Your task to perform on an android device: What is the news today? Image 0: 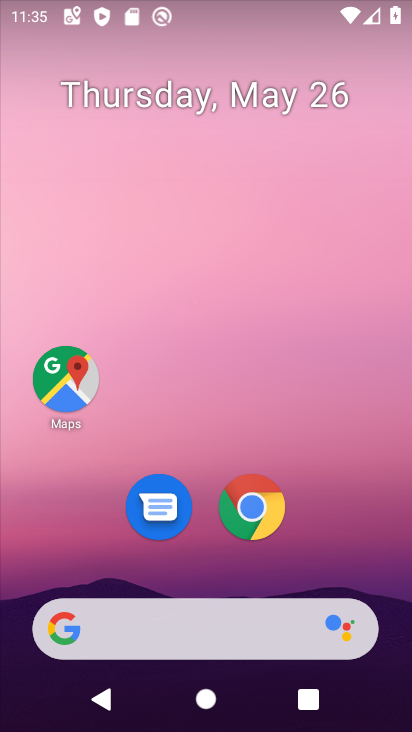
Step 0: click (258, 510)
Your task to perform on an android device: What is the news today? Image 1: 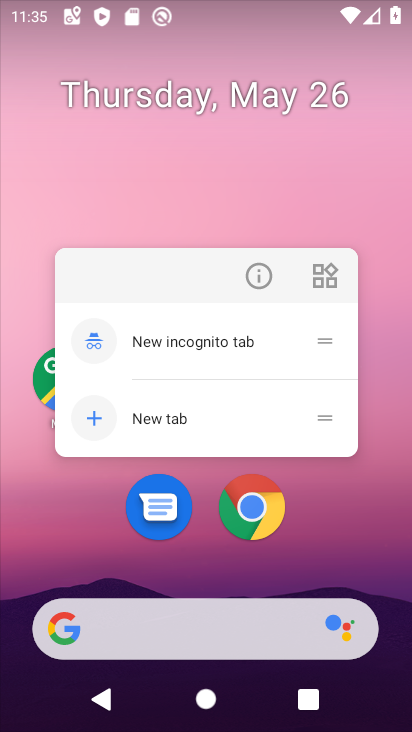
Step 1: click (257, 509)
Your task to perform on an android device: What is the news today? Image 2: 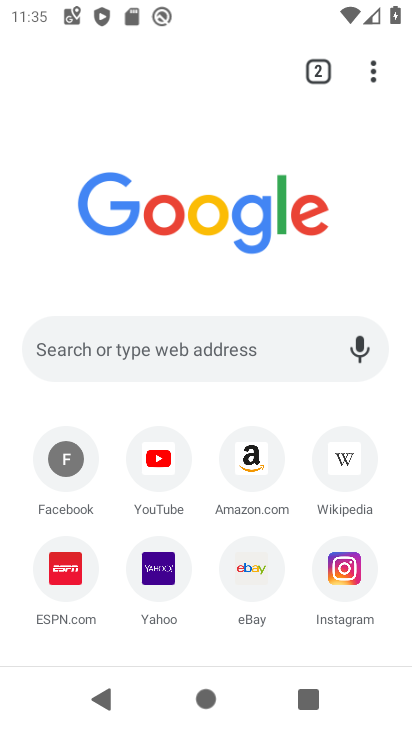
Step 2: click (219, 361)
Your task to perform on an android device: What is the news today? Image 3: 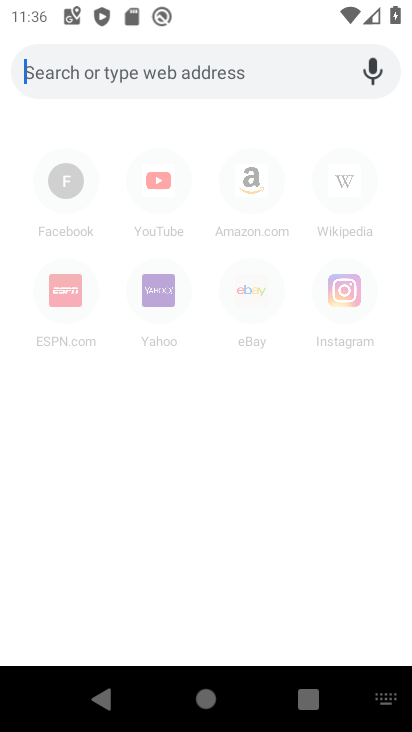
Step 3: type "news"
Your task to perform on an android device: What is the news today? Image 4: 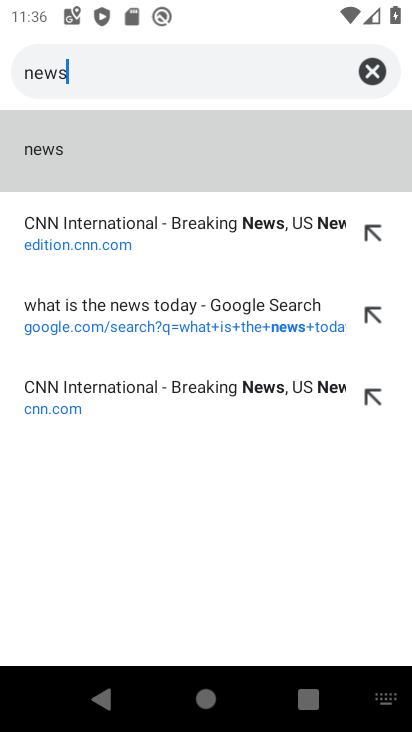
Step 4: click (62, 149)
Your task to perform on an android device: What is the news today? Image 5: 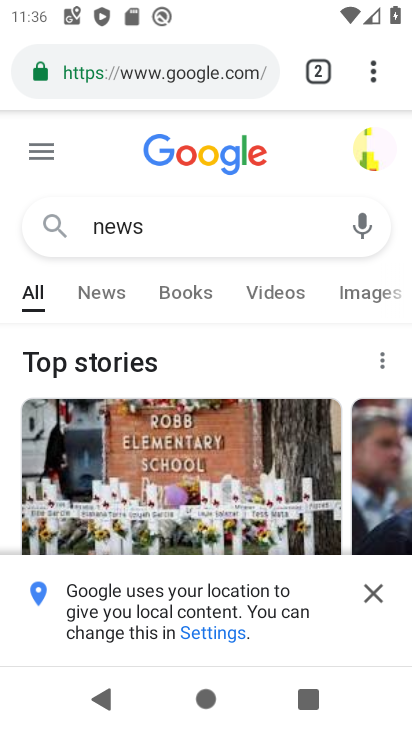
Step 5: click (120, 292)
Your task to perform on an android device: What is the news today? Image 6: 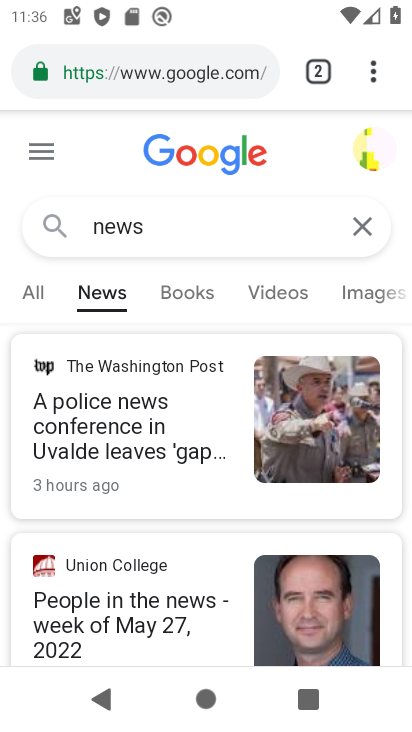
Step 6: task complete